Your task to perform on an android device: turn off javascript in the chrome app Image 0: 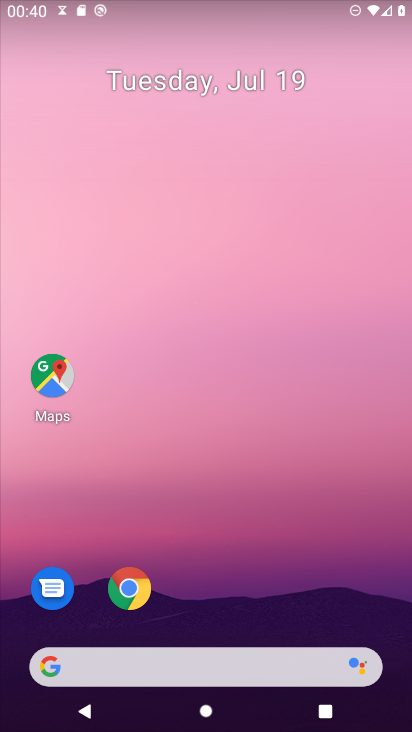
Step 0: press home button
Your task to perform on an android device: turn off javascript in the chrome app Image 1: 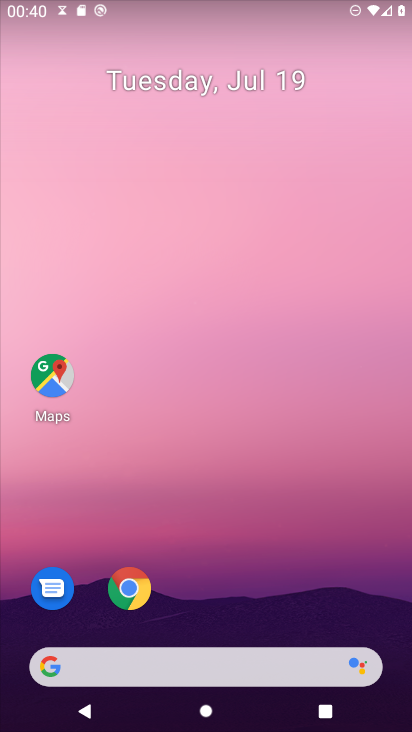
Step 1: drag from (306, 555) to (340, 124)
Your task to perform on an android device: turn off javascript in the chrome app Image 2: 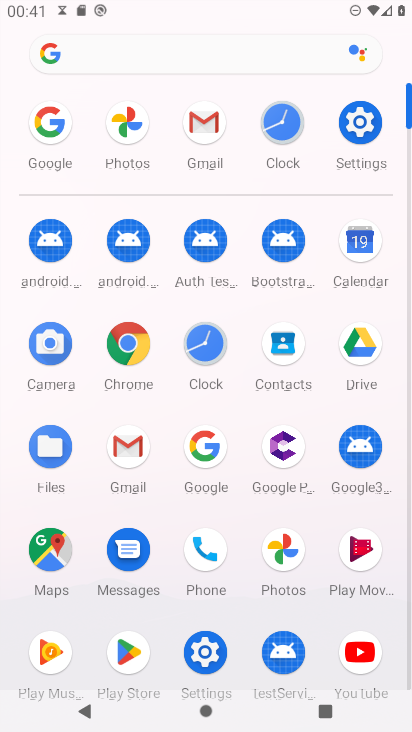
Step 2: click (134, 350)
Your task to perform on an android device: turn off javascript in the chrome app Image 3: 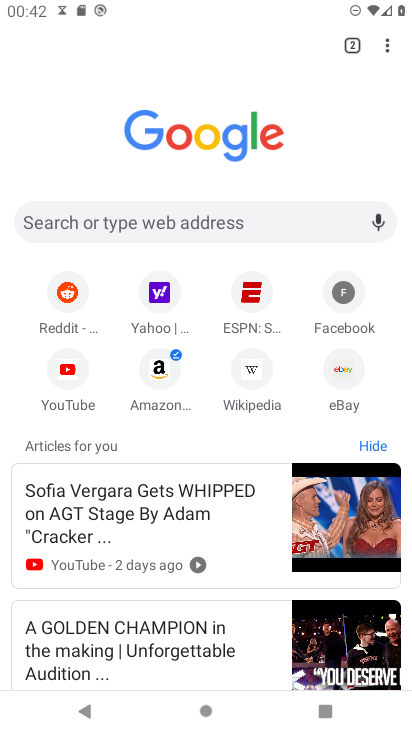
Step 3: drag from (385, 42) to (263, 384)
Your task to perform on an android device: turn off javascript in the chrome app Image 4: 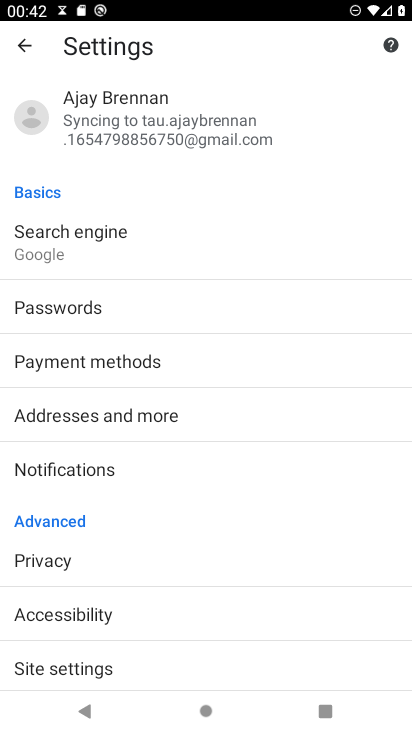
Step 4: click (83, 661)
Your task to perform on an android device: turn off javascript in the chrome app Image 5: 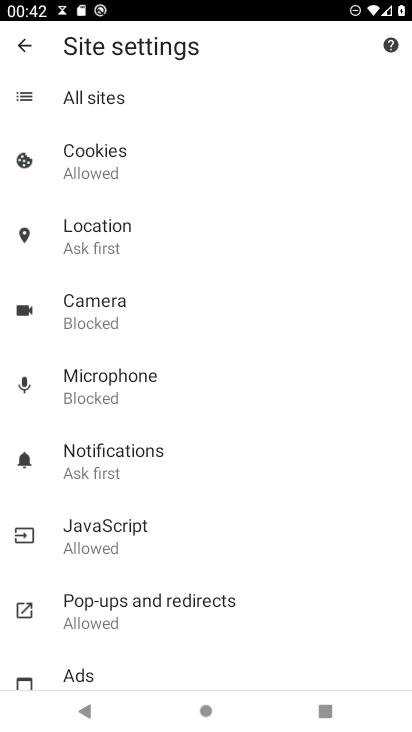
Step 5: click (142, 535)
Your task to perform on an android device: turn off javascript in the chrome app Image 6: 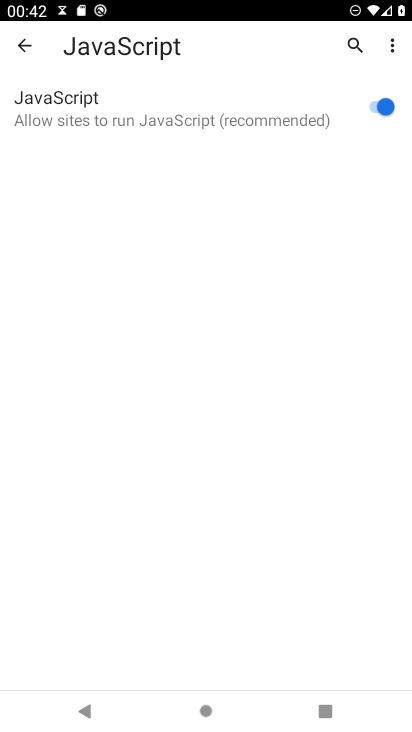
Step 6: click (379, 100)
Your task to perform on an android device: turn off javascript in the chrome app Image 7: 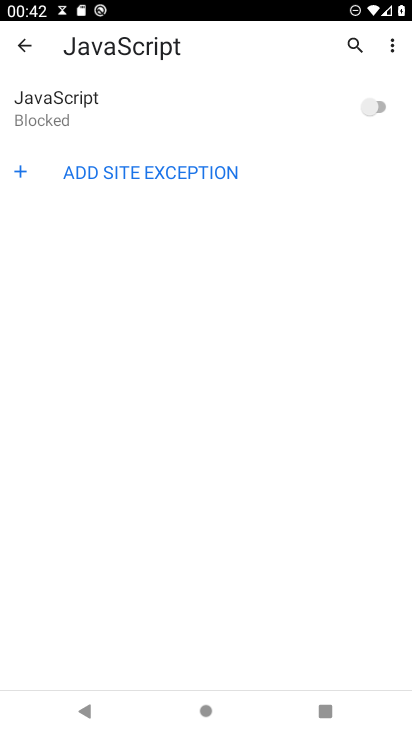
Step 7: task complete